Your task to perform on an android device: open app "Mercado Libre" Image 0: 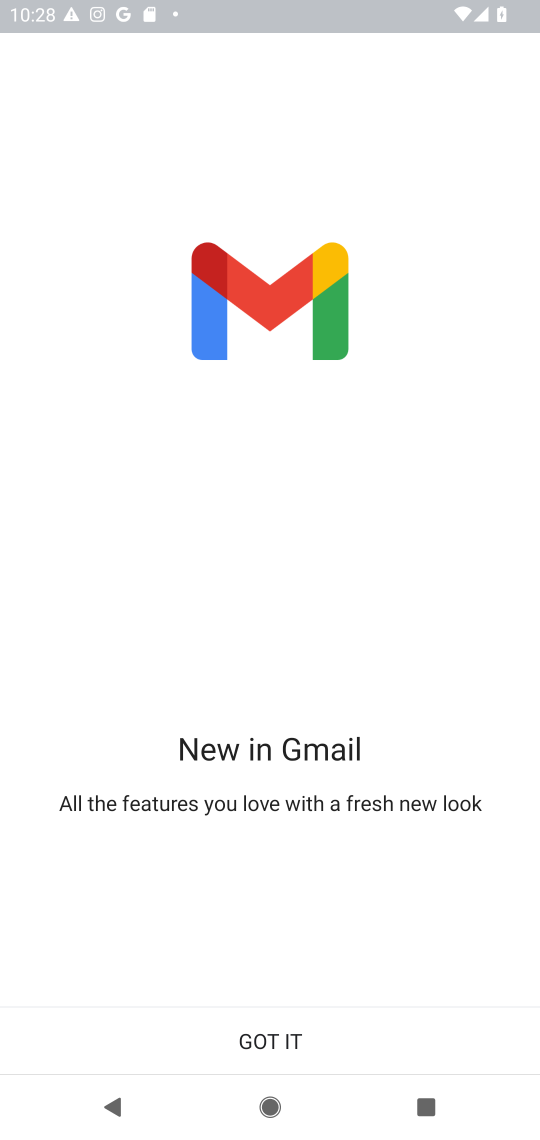
Step 0: press home button
Your task to perform on an android device: open app "Mercado Libre" Image 1: 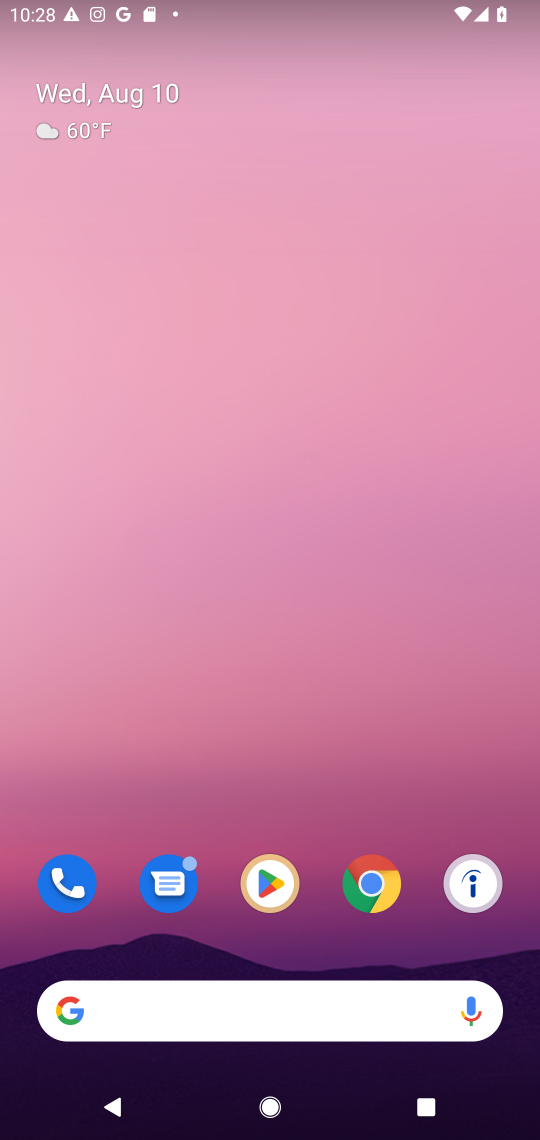
Step 1: drag from (418, 741) to (406, 66)
Your task to perform on an android device: open app "Mercado Libre" Image 2: 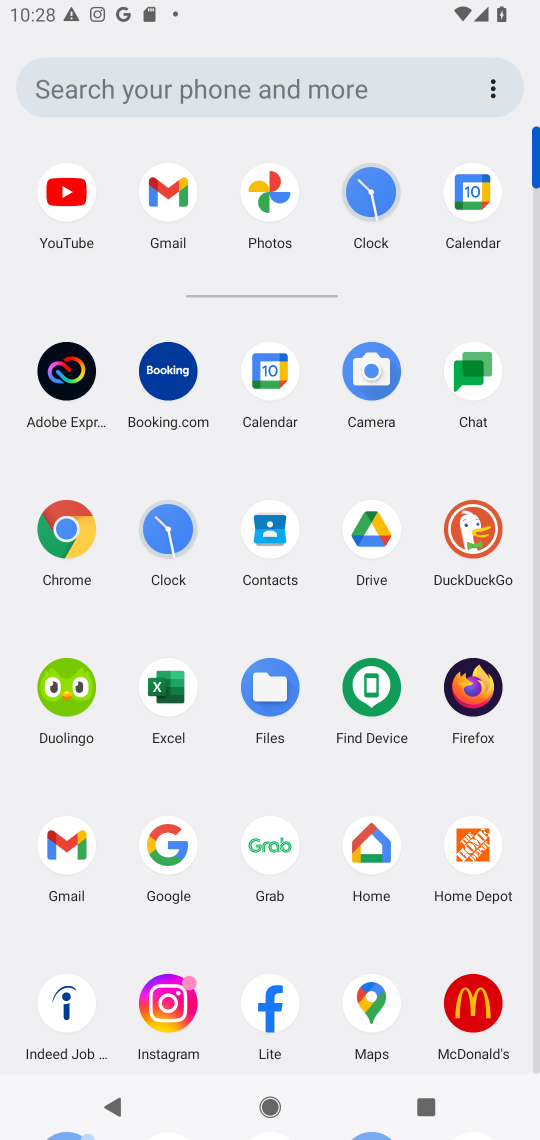
Step 2: drag from (504, 899) to (519, 373)
Your task to perform on an android device: open app "Mercado Libre" Image 3: 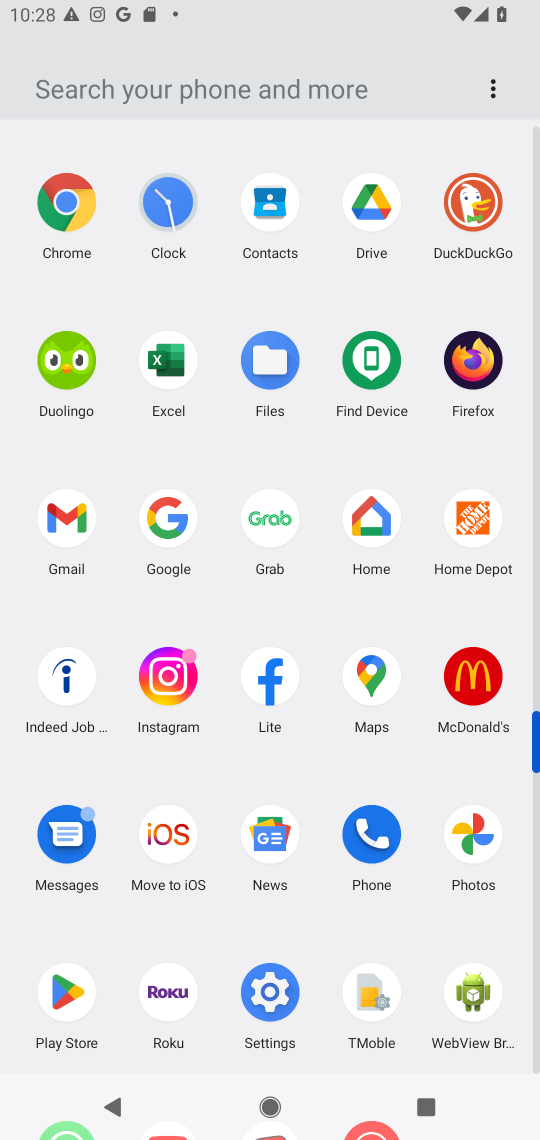
Step 3: click (61, 979)
Your task to perform on an android device: open app "Mercado Libre" Image 4: 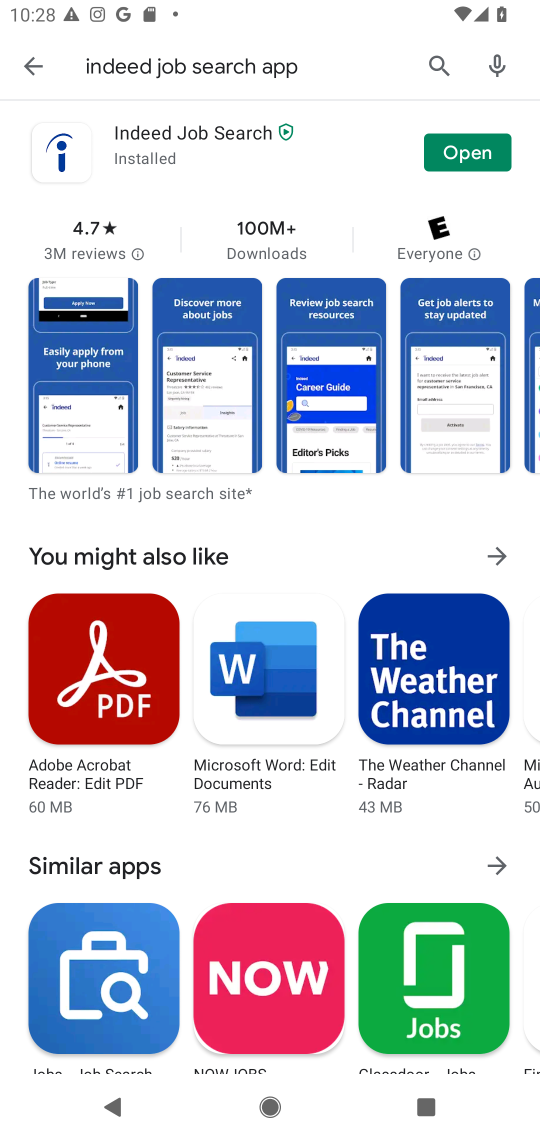
Step 4: click (435, 75)
Your task to perform on an android device: open app "Mercado Libre" Image 5: 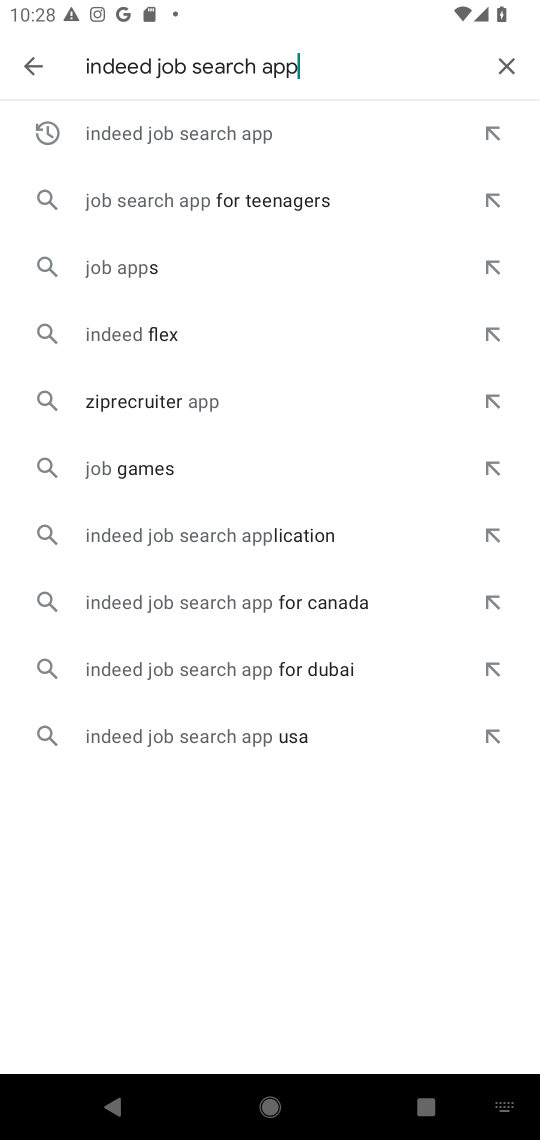
Step 5: click (508, 57)
Your task to perform on an android device: open app "Mercado Libre" Image 6: 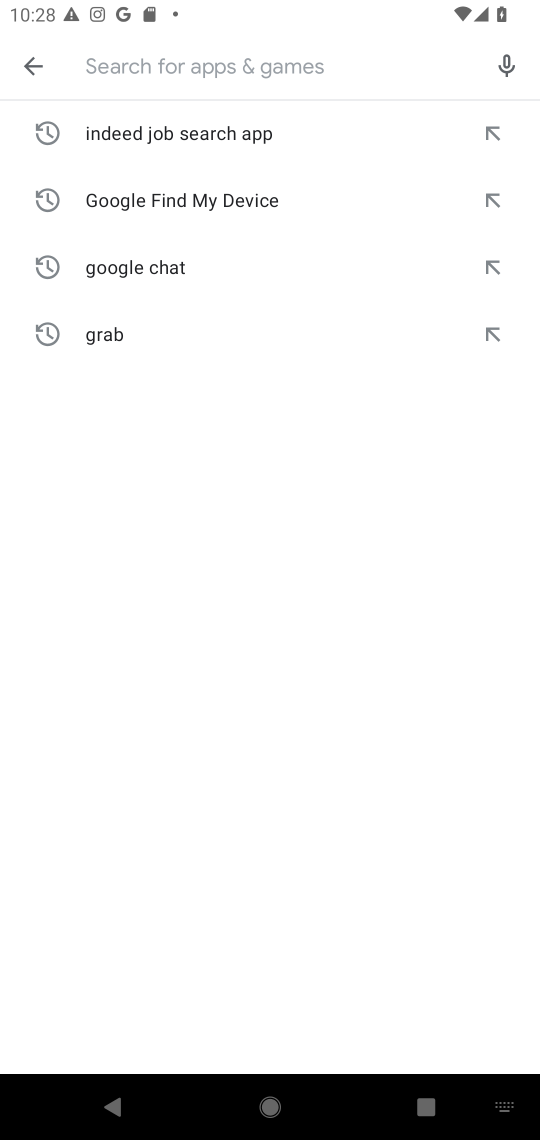
Step 6: type "Mercado Libre"
Your task to perform on an android device: open app "Mercado Libre" Image 7: 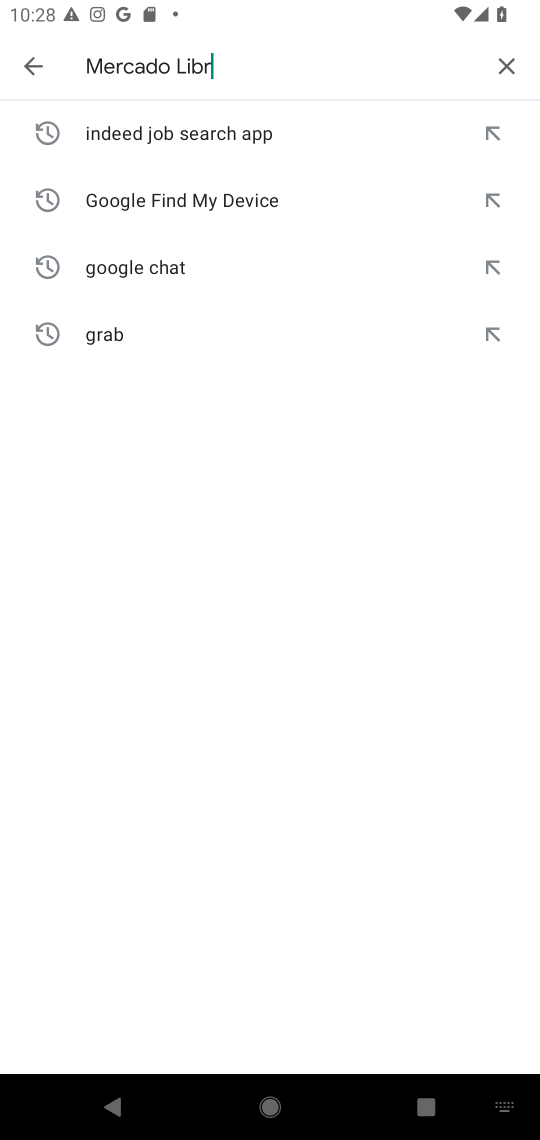
Step 7: press enter
Your task to perform on an android device: open app "Mercado Libre" Image 8: 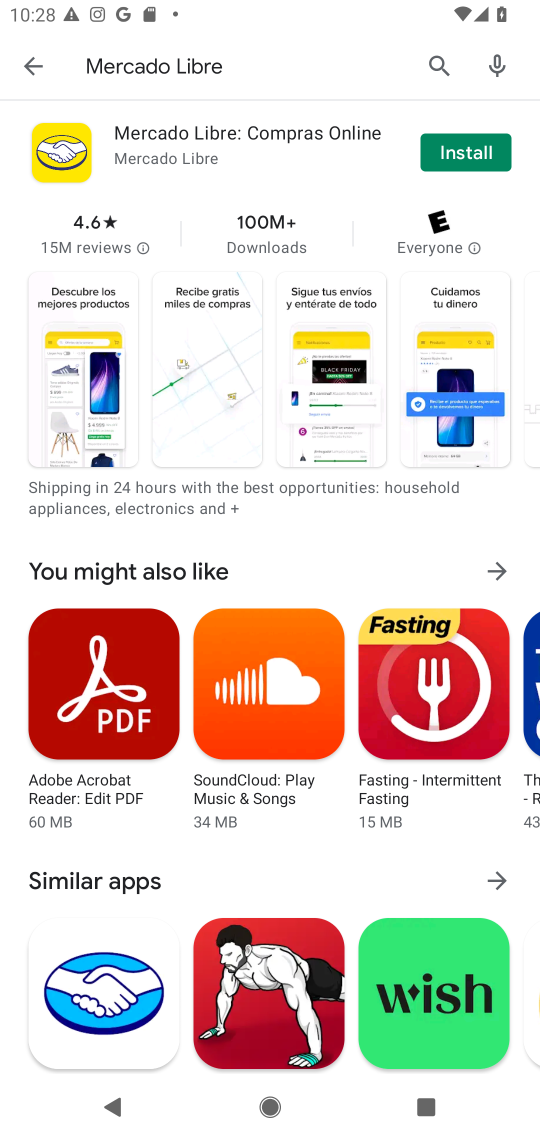
Step 8: task complete